Your task to perform on an android device: Open CNN.com Image 0: 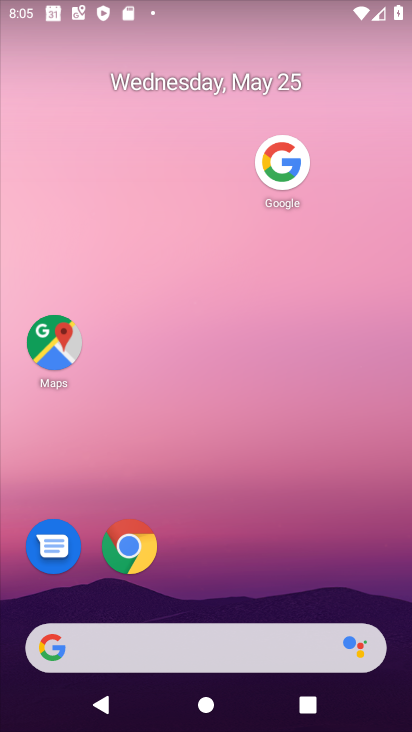
Step 0: click (145, 551)
Your task to perform on an android device: Open CNN.com Image 1: 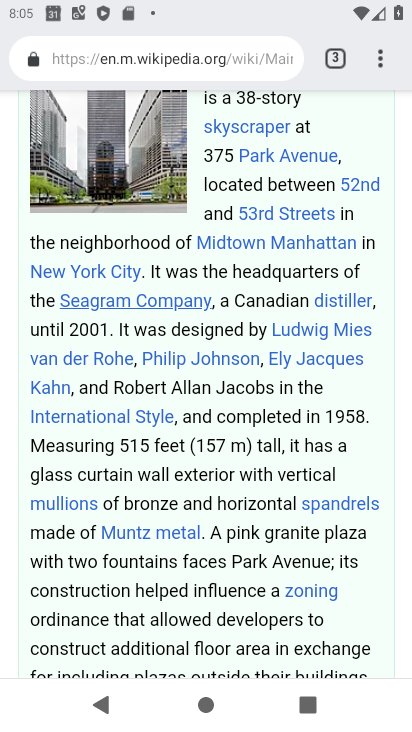
Step 1: drag from (382, 58) to (244, 115)
Your task to perform on an android device: Open CNN.com Image 2: 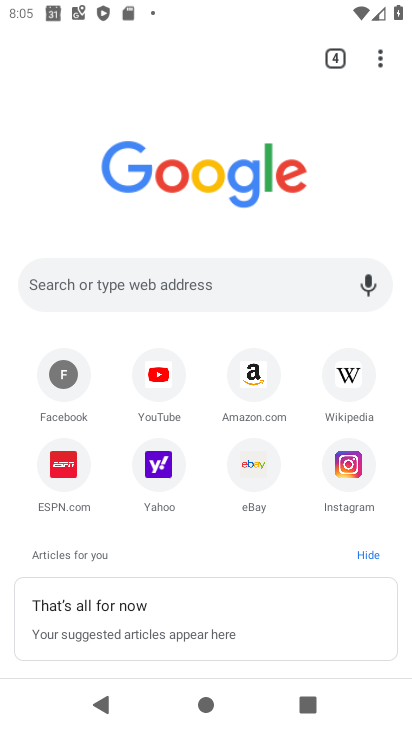
Step 2: type "cnn.com"
Your task to perform on an android device: Open CNN.com Image 3: 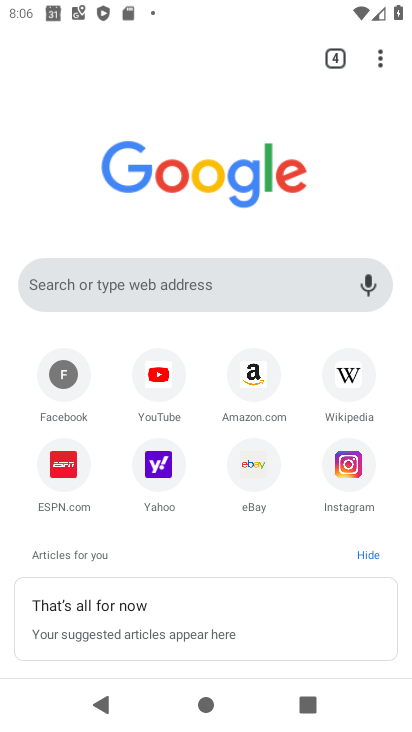
Step 3: click (160, 283)
Your task to perform on an android device: Open CNN.com Image 4: 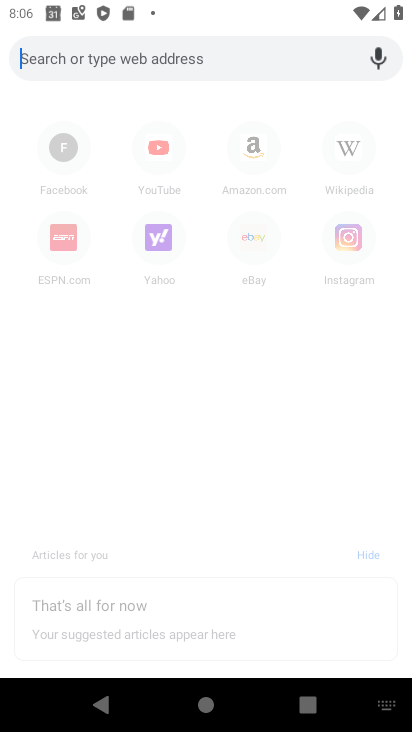
Step 4: type "cnn.com"
Your task to perform on an android device: Open CNN.com Image 5: 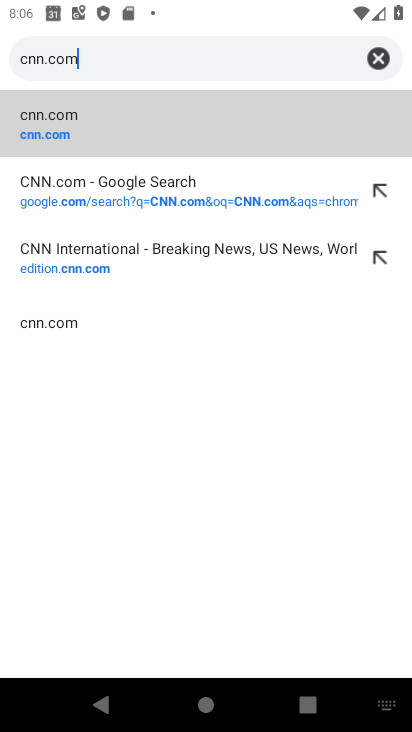
Step 5: click (56, 113)
Your task to perform on an android device: Open CNN.com Image 6: 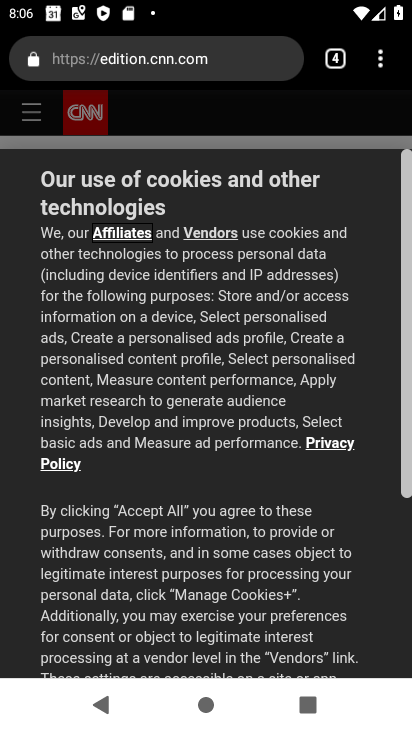
Step 6: task complete